Your task to perform on an android device: What's on my calendar today? Image 0: 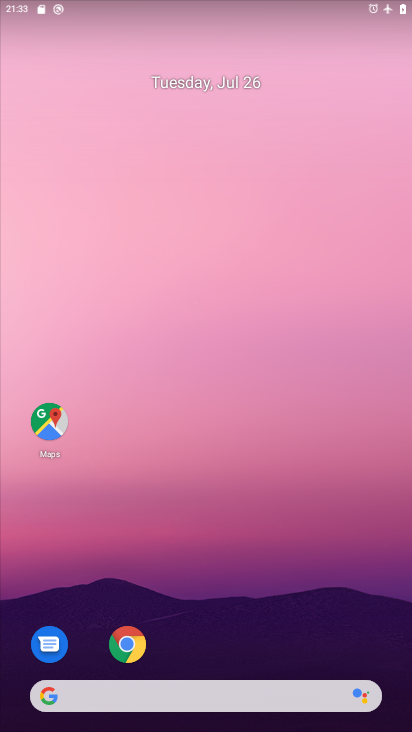
Step 0: drag from (243, 655) to (232, 59)
Your task to perform on an android device: What's on my calendar today? Image 1: 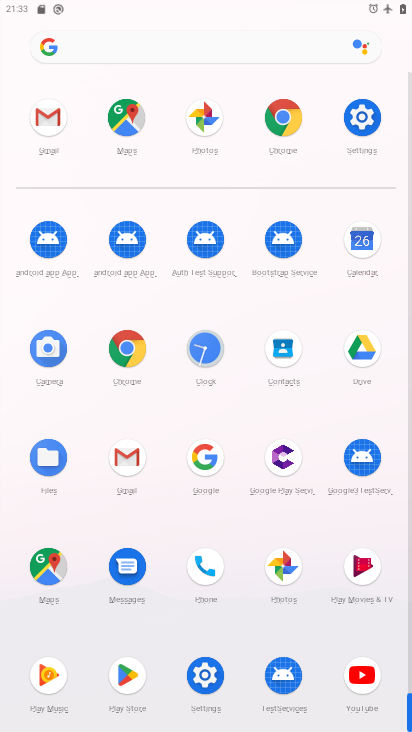
Step 1: click (376, 241)
Your task to perform on an android device: What's on my calendar today? Image 2: 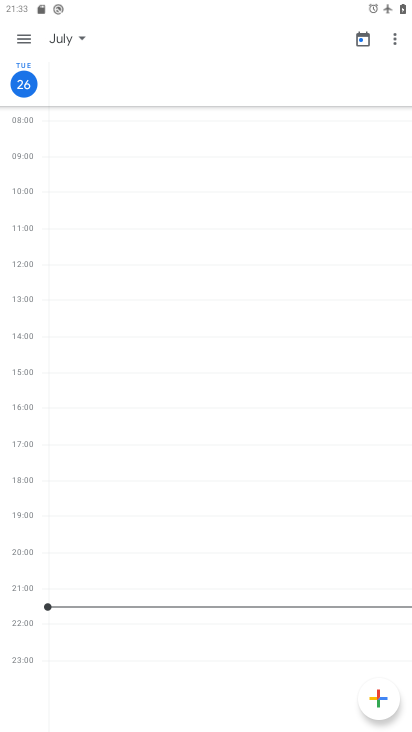
Step 2: click (38, 42)
Your task to perform on an android device: What's on my calendar today? Image 3: 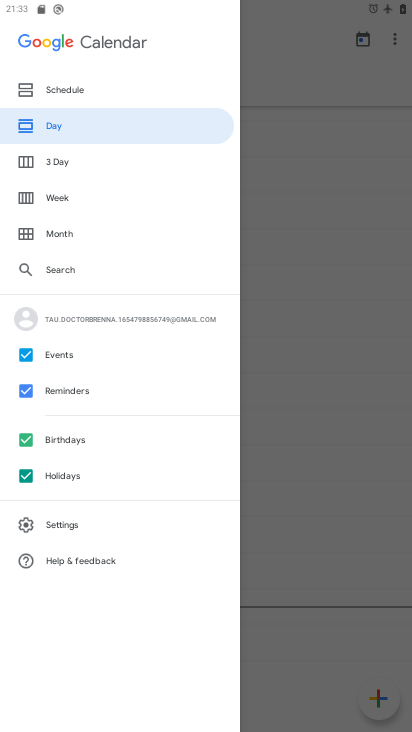
Step 3: click (67, 238)
Your task to perform on an android device: What's on my calendar today? Image 4: 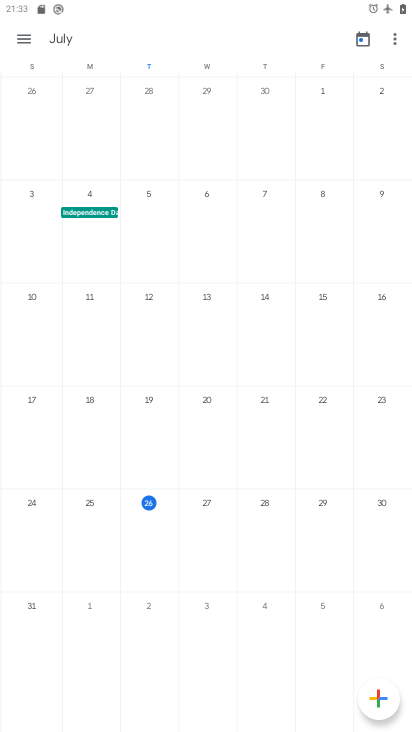
Step 4: click (206, 498)
Your task to perform on an android device: What's on my calendar today? Image 5: 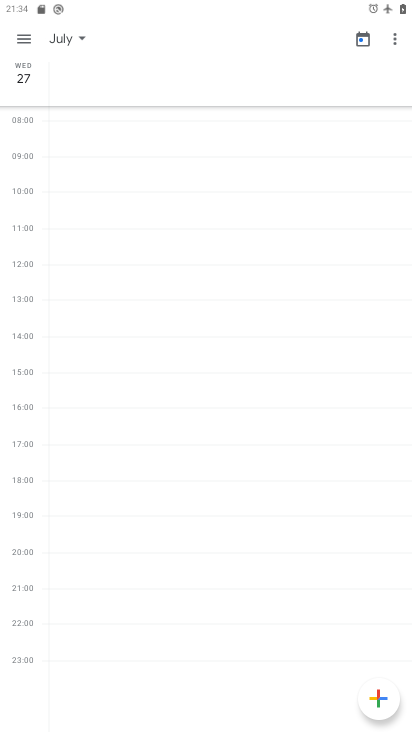
Step 5: task complete